Your task to perform on an android device: Open maps Image 0: 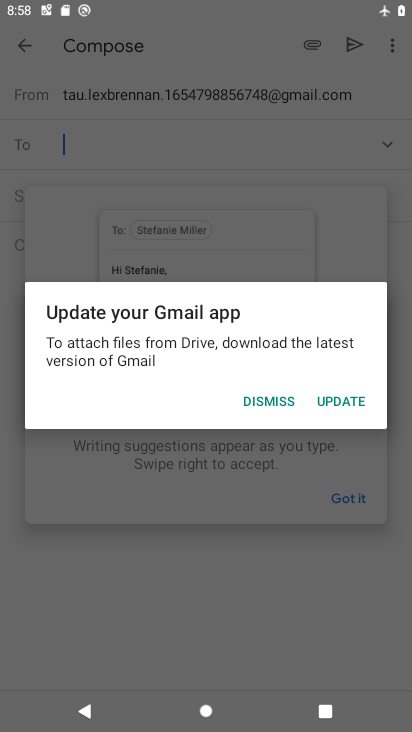
Step 0: press home button
Your task to perform on an android device: Open maps Image 1: 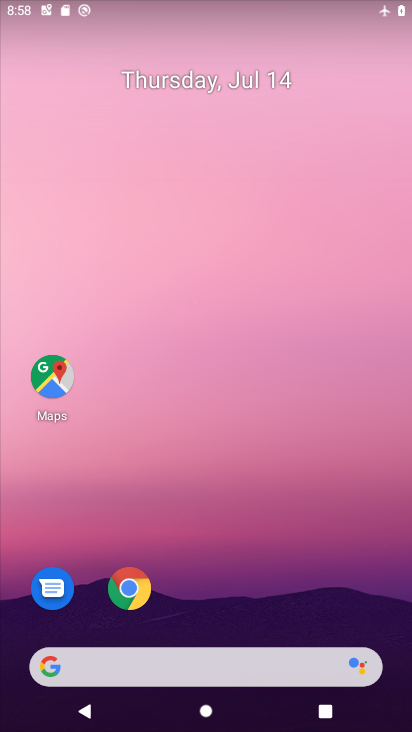
Step 1: click (49, 374)
Your task to perform on an android device: Open maps Image 2: 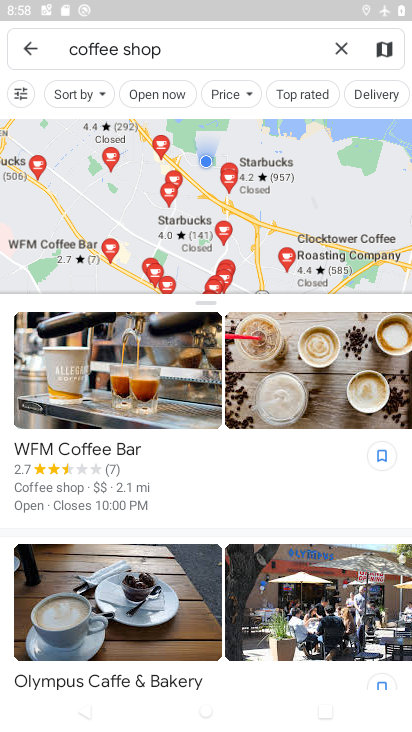
Step 2: click (36, 40)
Your task to perform on an android device: Open maps Image 3: 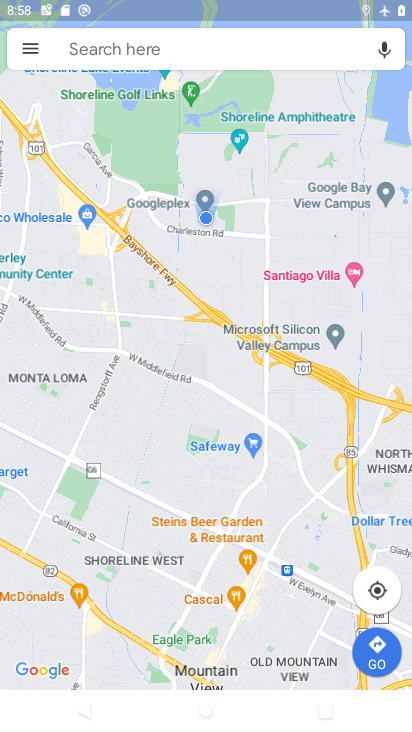
Step 3: task complete